Your task to perform on an android device: turn off notifications settings in the gmail app Image 0: 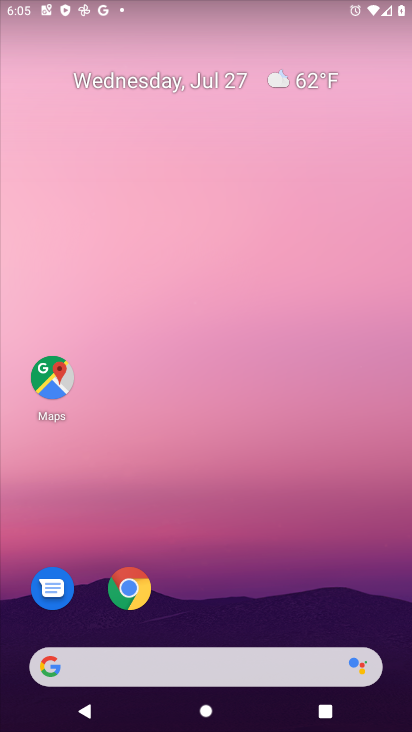
Step 0: drag from (155, 528) to (112, 181)
Your task to perform on an android device: turn off notifications settings in the gmail app Image 1: 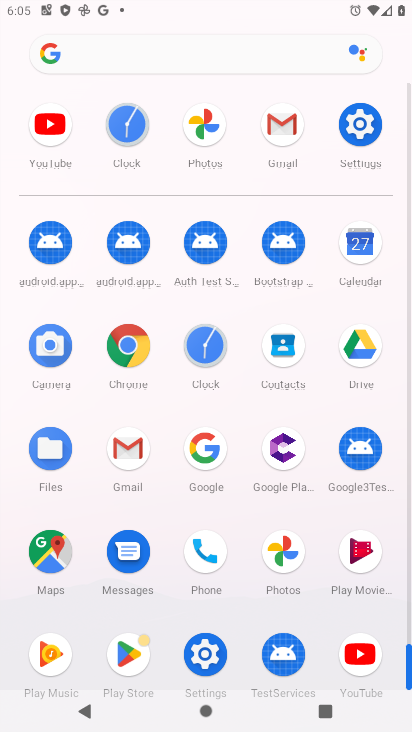
Step 1: click (277, 126)
Your task to perform on an android device: turn off notifications settings in the gmail app Image 2: 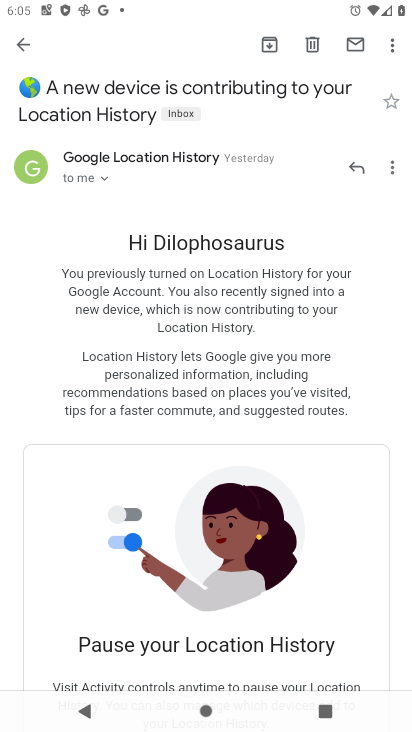
Step 2: click (396, 43)
Your task to perform on an android device: turn off notifications settings in the gmail app Image 3: 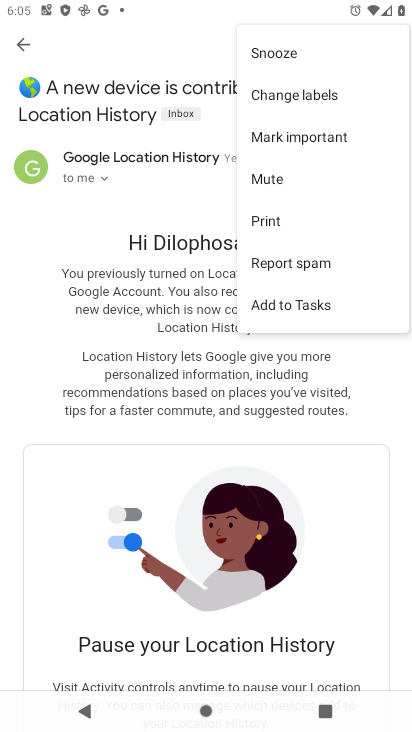
Step 3: click (22, 44)
Your task to perform on an android device: turn off notifications settings in the gmail app Image 4: 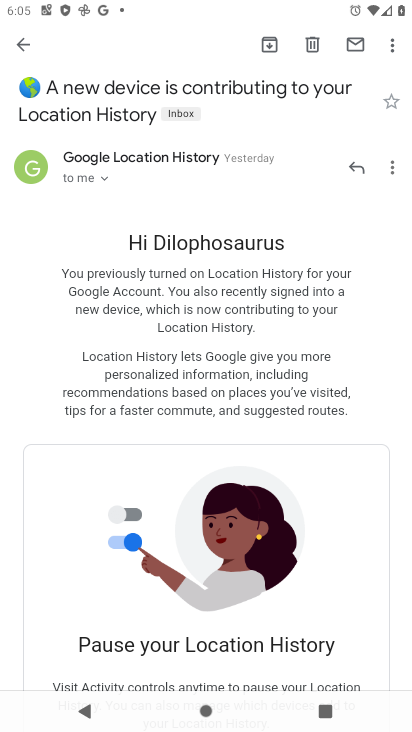
Step 4: click (22, 44)
Your task to perform on an android device: turn off notifications settings in the gmail app Image 5: 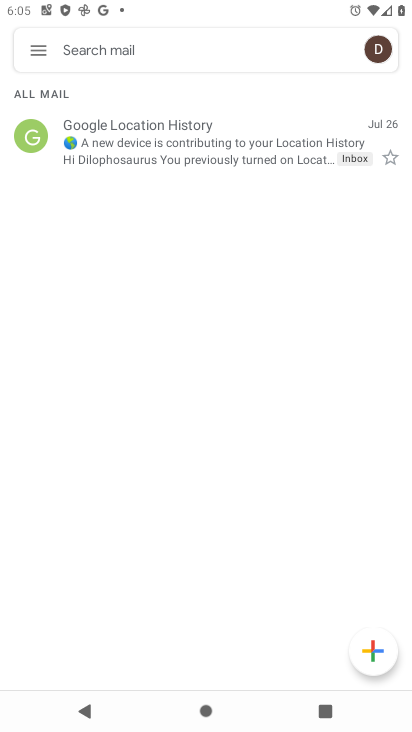
Step 5: click (38, 52)
Your task to perform on an android device: turn off notifications settings in the gmail app Image 6: 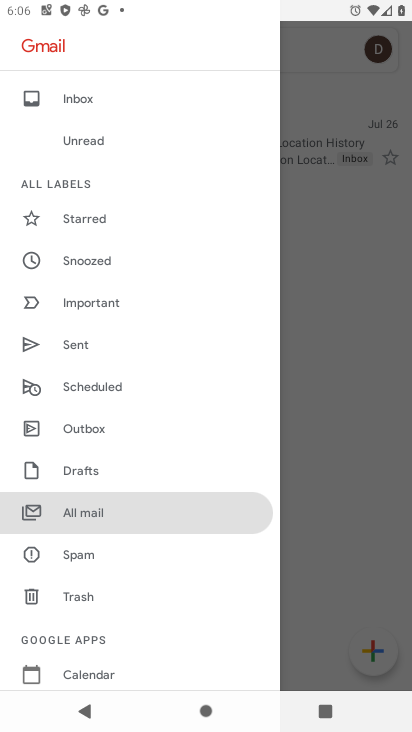
Step 6: drag from (88, 424) to (87, 310)
Your task to perform on an android device: turn off notifications settings in the gmail app Image 7: 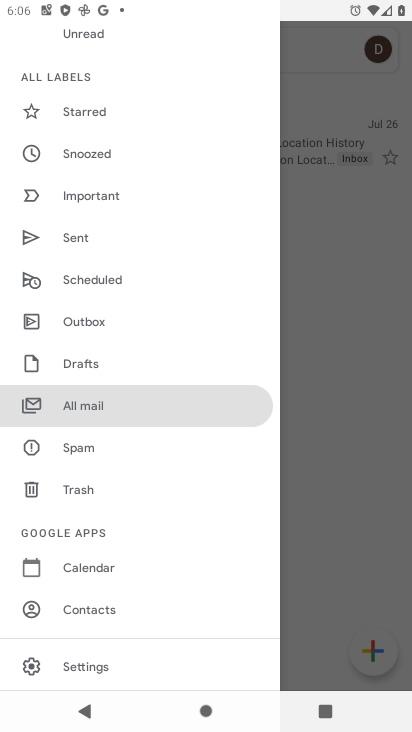
Step 7: click (81, 663)
Your task to perform on an android device: turn off notifications settings in the gmail app Image 8: 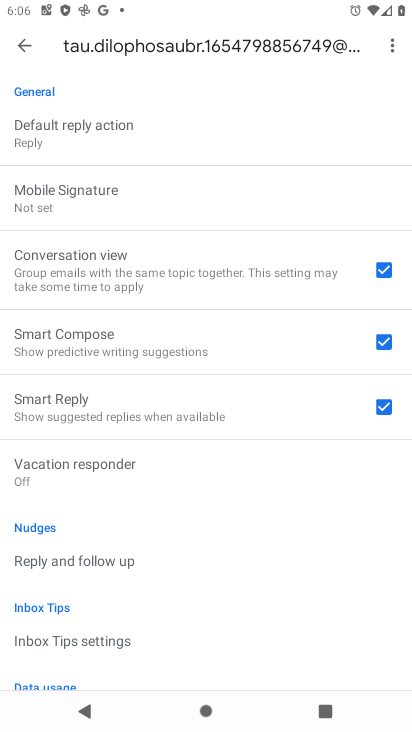
Step 8: drag from (191, 297) to (220, 720)
Your task to perform on an android device: turn off notifications settings in the gmail app Image 9: 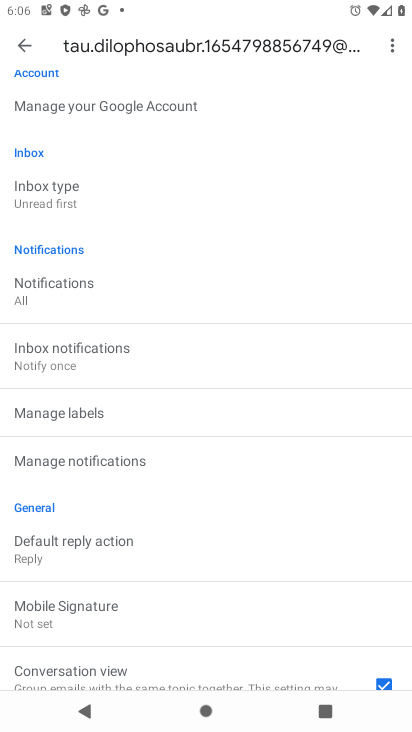
Step 9: click (47, 282)
Your task to perform on an android device: turn off notifications settings in the gmail app Image 10: 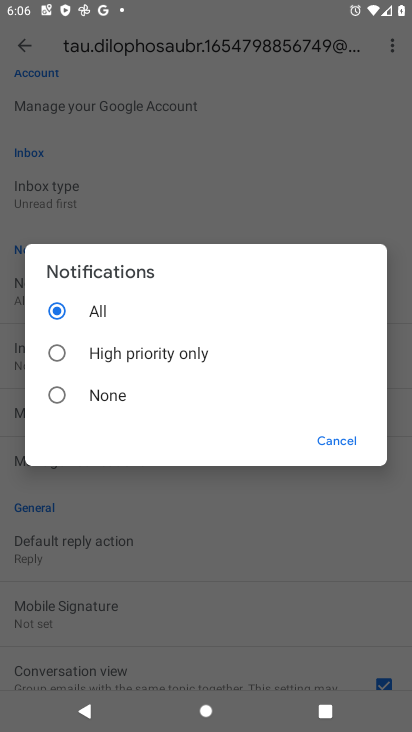
Step 10: click (58, 386)
Your task to perform on an android device: turn off notifications settings in the gmail app Image 11: 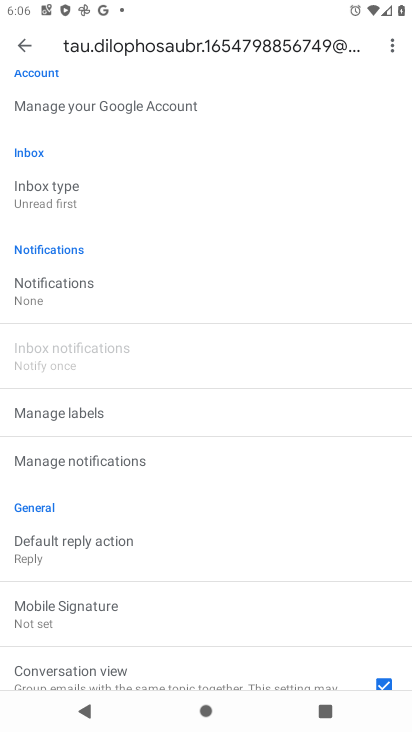
Step 11: task complete